Your task to perform on an android device: What's a good restaurant in Portland? Image 0: 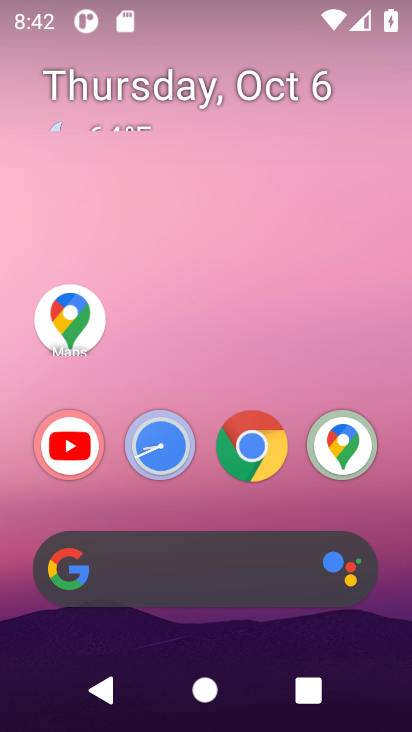
Step 0: click (187, 554)
Your task to perform on an android device: What's a good restaurant in Portland? Image 1: 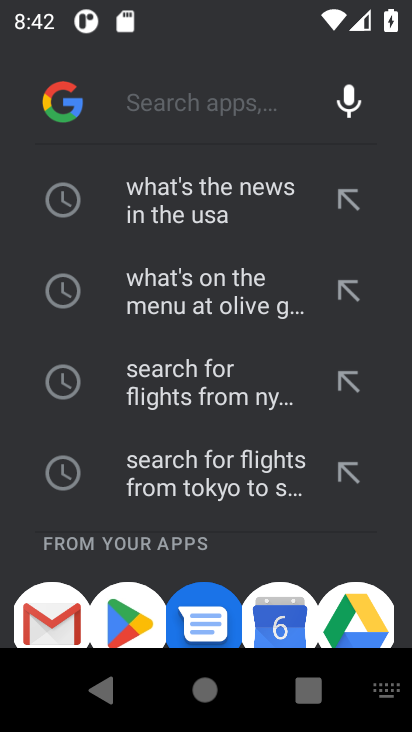
Step 1: type "What's a good restaurant in Portland?"
Your task to perform on an android device: What's a good restaurant in Portland? Image 2: 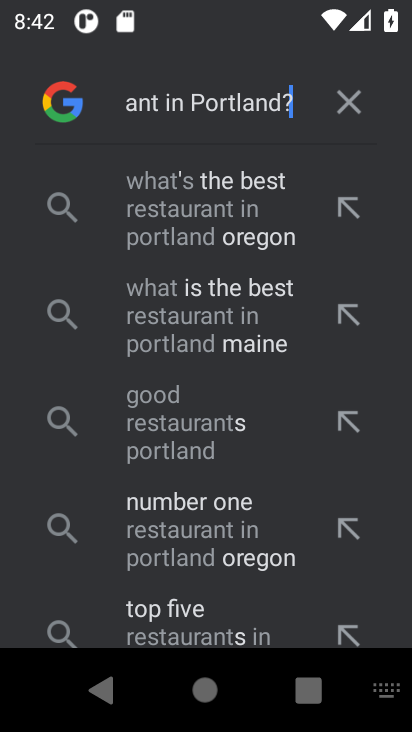
Step 2: click (226, 180)
Your task to perform on an android device: What's a good restaurant in Portland? Image 3: 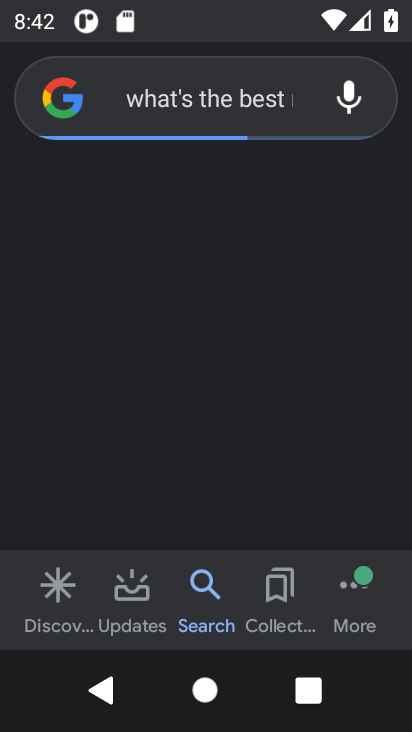
Step 3: task complete